Your task to perform on an android device: see creations saved in the google photos Image 0: 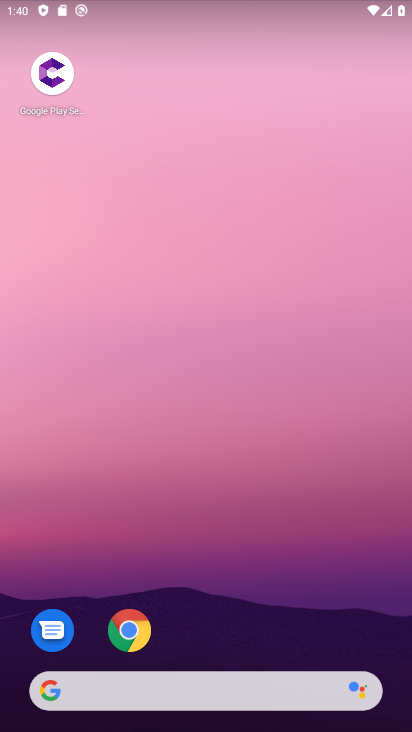
Step 0: drag from (213, 634) to (218, 74)
Your task to perform on an android device: see creations saved in the google photos Image 1: 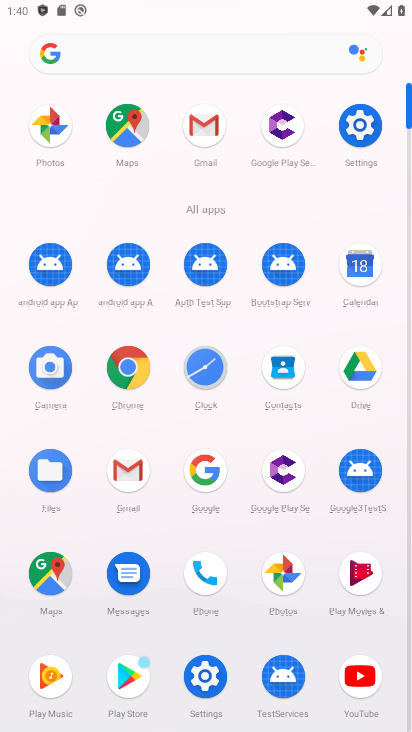
Step 1: click (281, 579)
Your task to perform on an android device: see creations saved in the google photos Image 2: 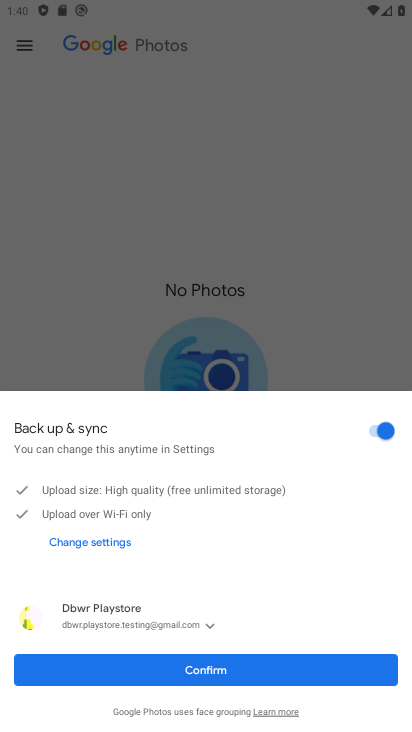
Step 2: click (190, 671)
Your task to perform on an android device: see creations saved in the google photos Image 3: 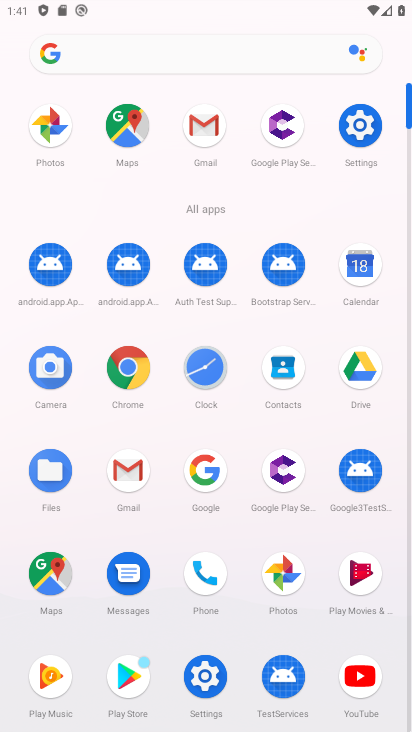
Step 3: click (275, 584)
Your task to perform on an android device: see creations saved in the google photos Image 4: 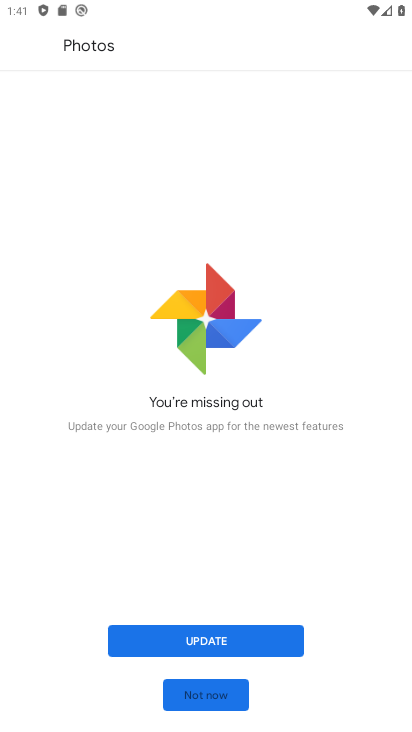
Step 4: click (219, 692)
Your task to perform on an android device: see creations saved in the google photos Image 5: 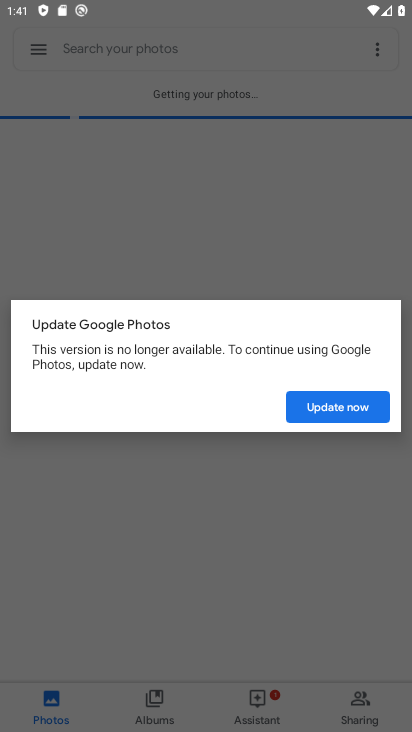
Step 5: press back button
Your task to perform on an android device: see creations saved in the google photos Image 6: 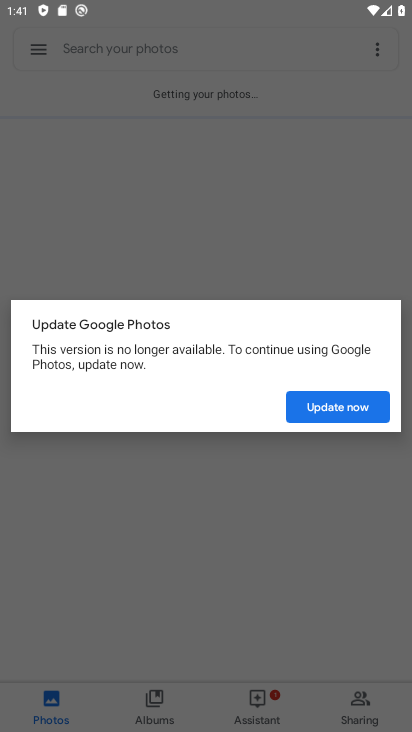
Step 6: click (326, 406)
Your task to perform on an android device: see creations saved in the google photos Image 7: 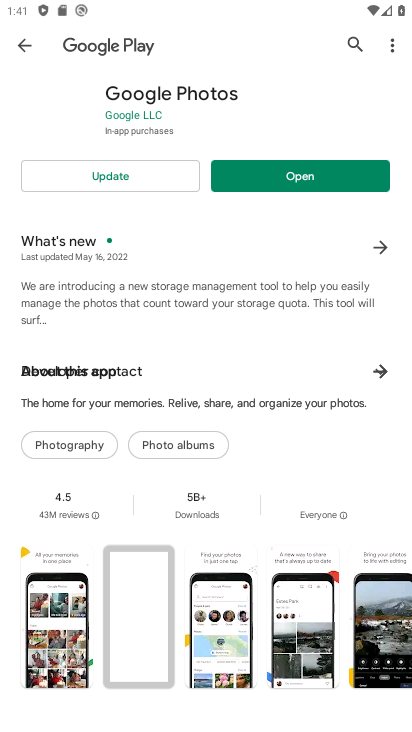
Step 7: press back button
Your task to perform on an android device: see creations saved in the google photos Image 8: 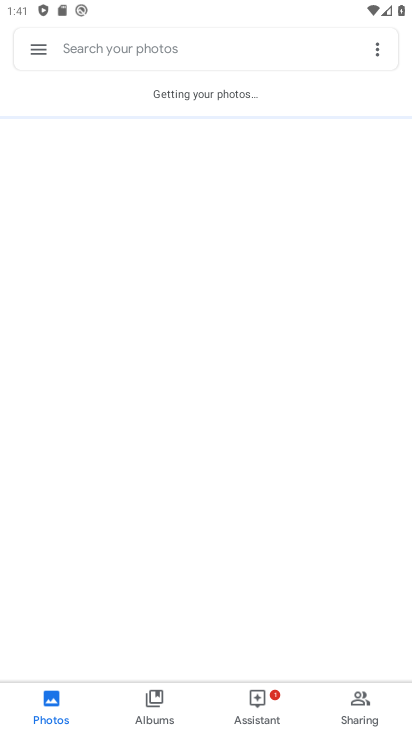
Step 8: click (50, 43)
Your task to perform on an android device: see creations saved in the google photos Image 9: 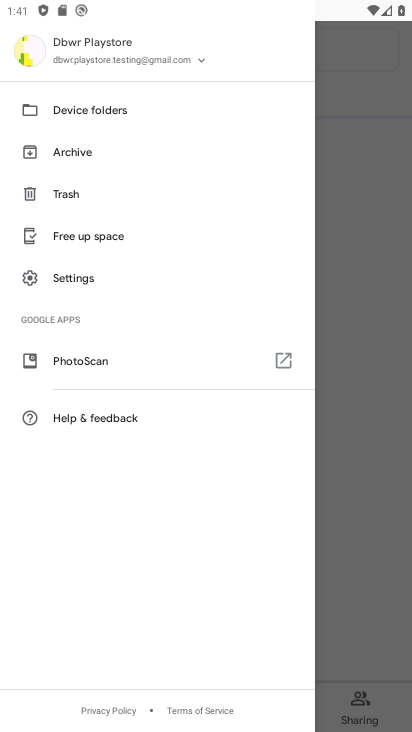
Step 9: click (388, 128)
Your task to perform on an android device: see creations saved in the google photos Image 10: 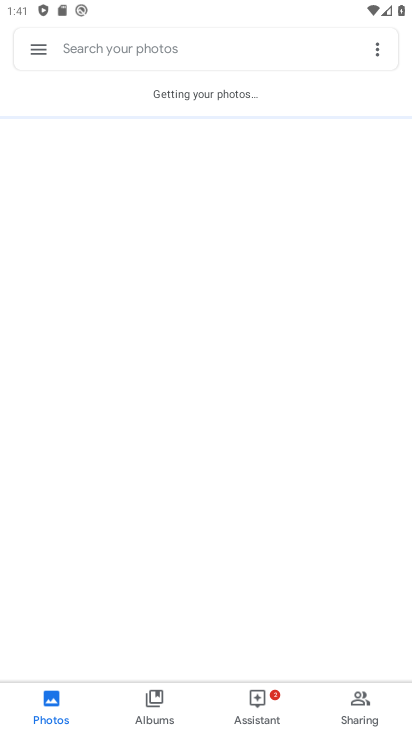
Step 10: click (265, 43)
Your task to perform on an android device: see creations saved in the google photos Image 11: 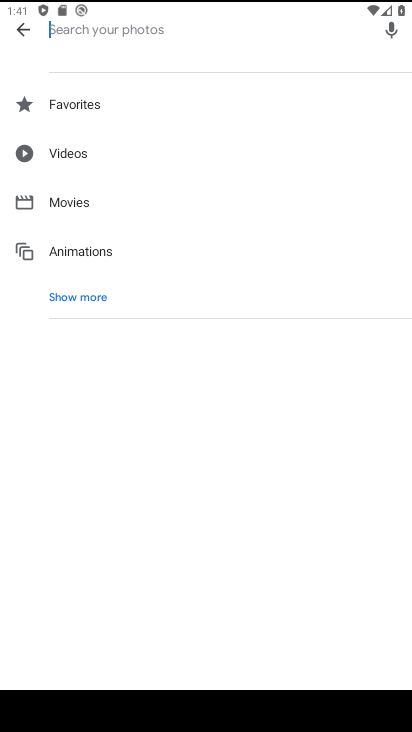
Step 11: click (75, 293)
Your task to perform on an android device: see creations saved in the google photos Image 12: 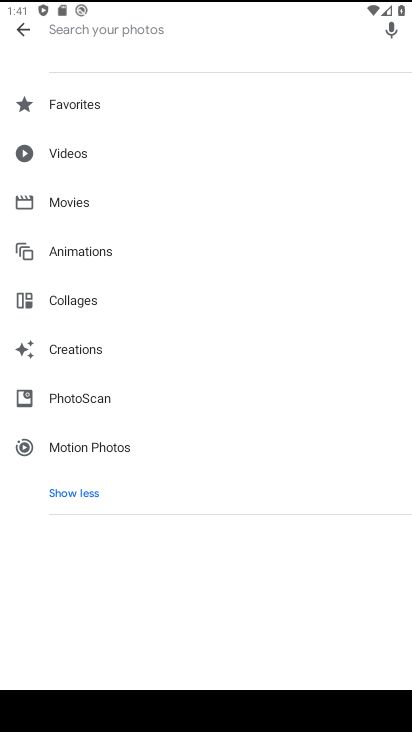
Step 12: click (83, 348)
Your task to perform on an android device: see creations saved in the google photos Image 13: 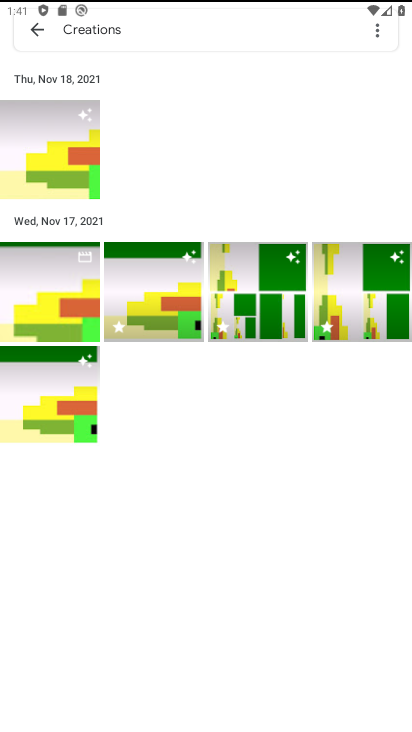
Step 13: task complete